Your task to perform on an android device: change the clock display to analog Image 0: 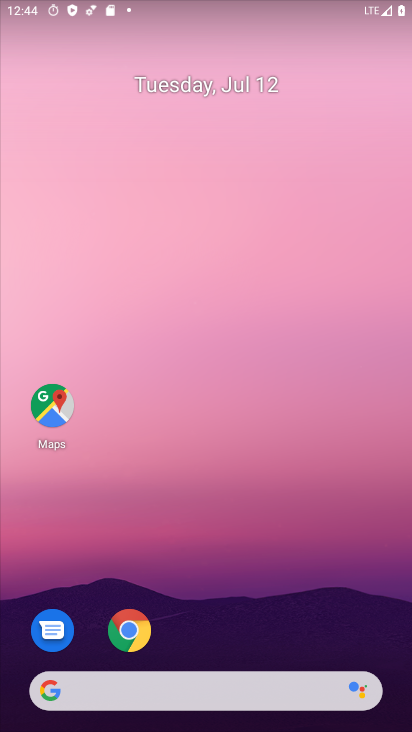
Step 0: drag from (245, 635) to (289, 166)
Your task to perform on an android device: change the clock display to analog Image 1: 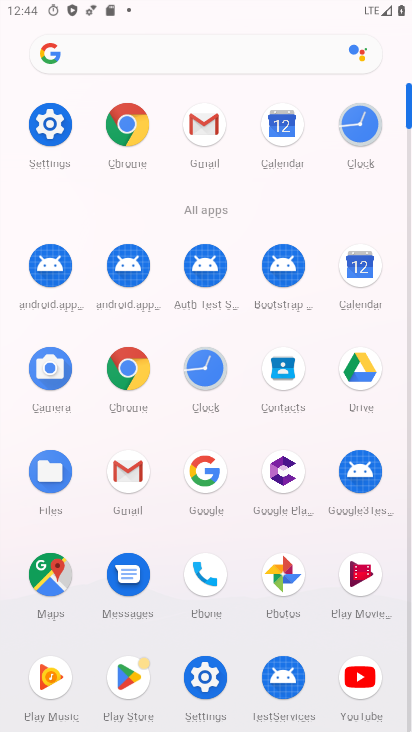
Step 1: click (196, 379)
Your task to perform on an android device: change the clock display to analog Image 2: 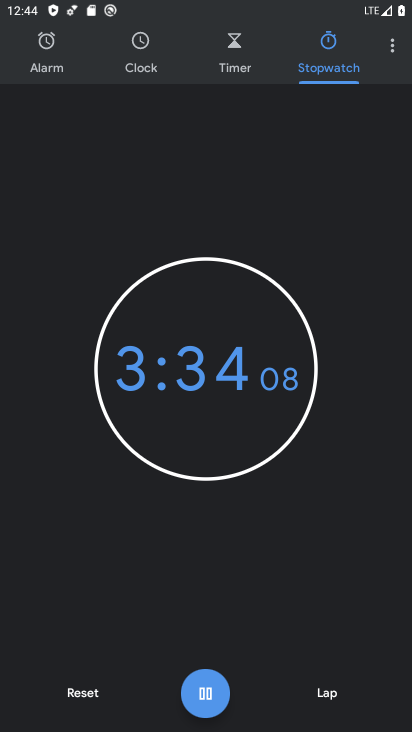
Step 2: click (394, 39)
Your task to perform on an android device: change the clock display to analog Image 3: 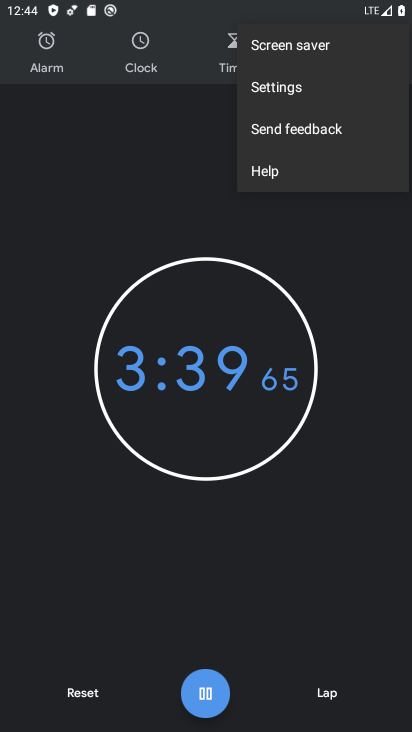
Step 3: click (283, 97)
Your task to perform on an android device: change the clock display to analog Image 4: 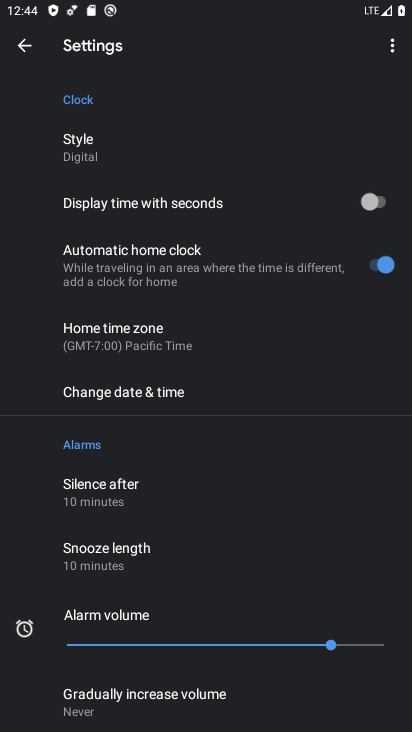
Step 4: click (112, 150)
Your task to perform on an android device: change the clock display to analog Image 5: 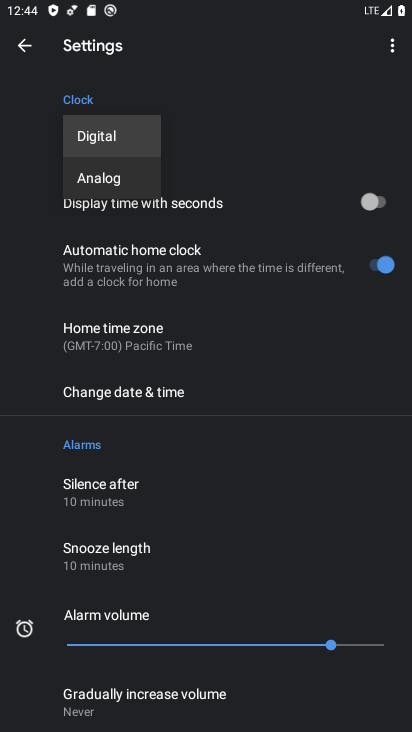
Step 5: click (106, 182)
Your task to perform on an android device: change the clock display to analog Image 6: 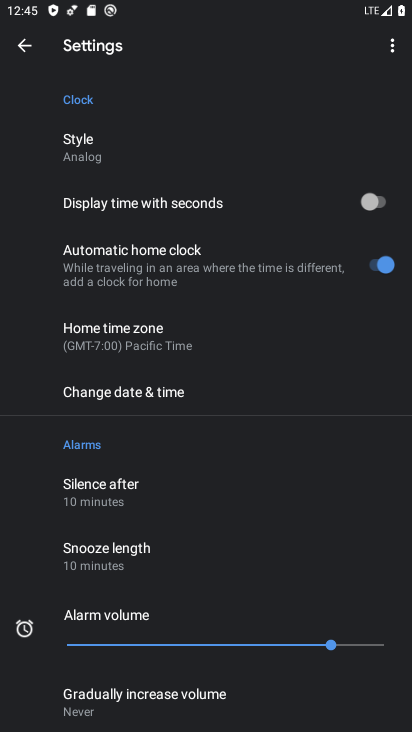
Step 6: task complete